Your task to perform on an android device: toggle improve location accuracy Image 0: 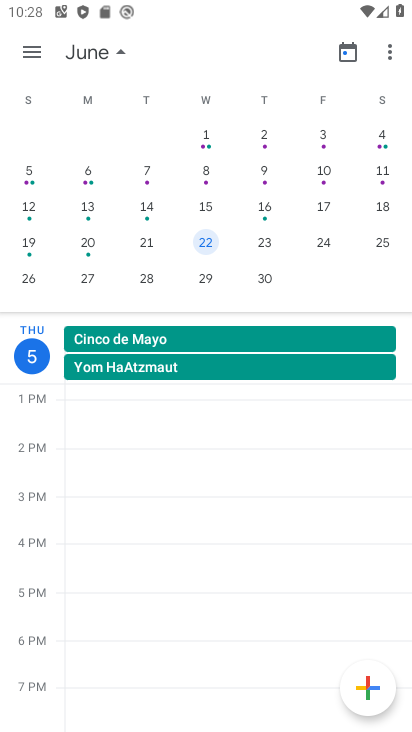
Step 0: press home button
Your task to perform on an android device: toggle improve location accuracy Image 1: 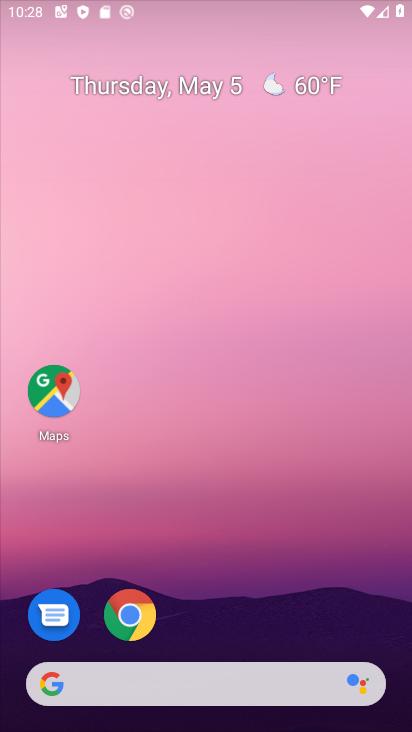
Step 1: drag from (267, 576) to (282, 18)
Your task to perform on an android device: toggle improve location accuracy Image 2: 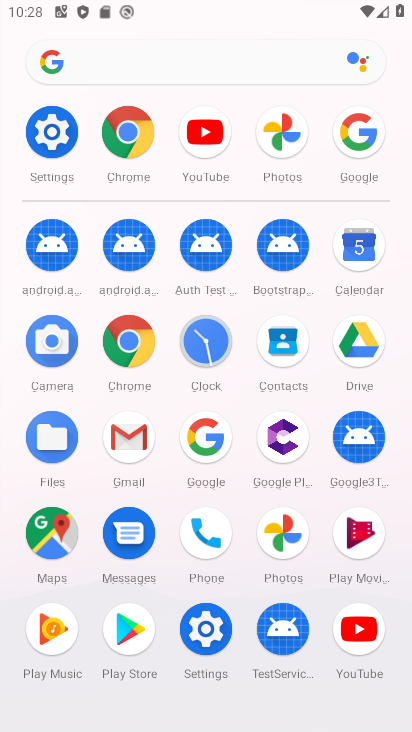
Step 2: click (53, 130)
Your task to perform on an android device: toggle improve location accuracy Image 3: 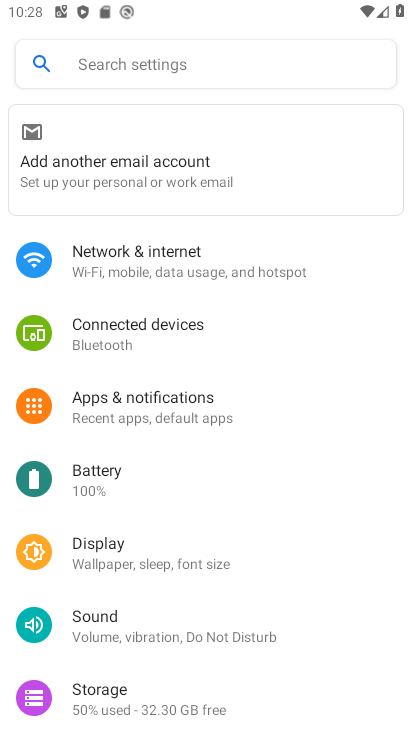
Step 3: drag from (262, 586) to (255, 288)
Your task to perform on an android device: toggle improve location accuracy Image 4: 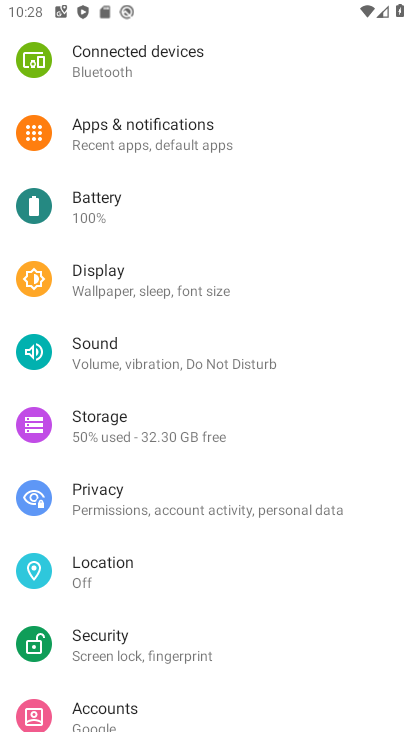
Step 4: click (128, 561)
Your task to perform on an android device: toggle improve location accuracy Image 5: 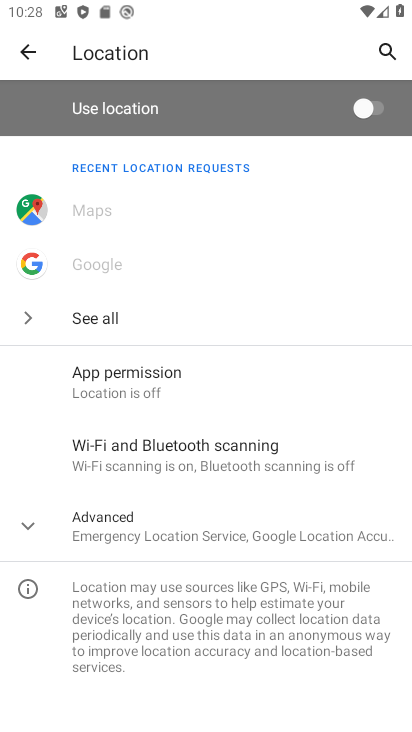
Step 5: click (116, 535)
Your task to perform on an android device: toggle improve location accuracy Image 6: 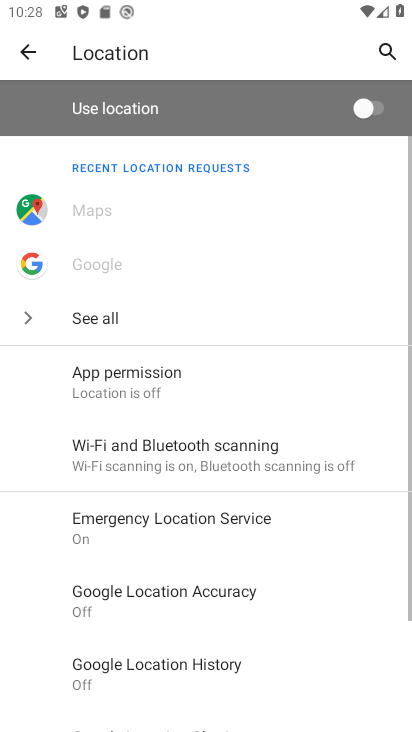
Step 6: drag from (227, 540) to (232, 247)
Your task to perform on an android device: toggle improve location accuracy Image 7: 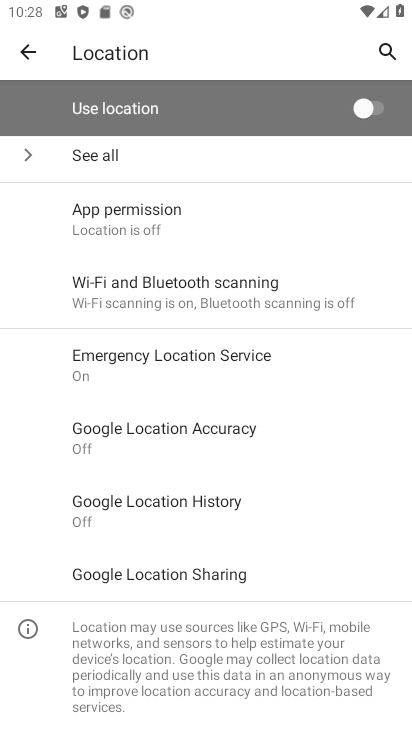
Step 7: click (144, 431)
Your task to perform on an android device: toggle improve location accuracy Image 8: 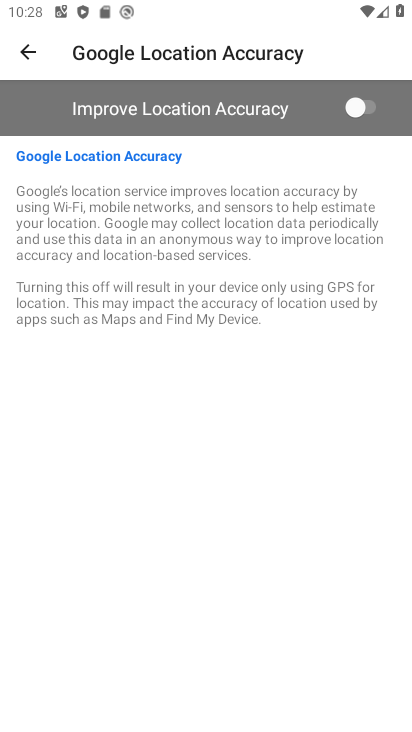
Step 8: click (360, 103)
Your task to perform on an android device: toggle improve location accuracy Image 9: 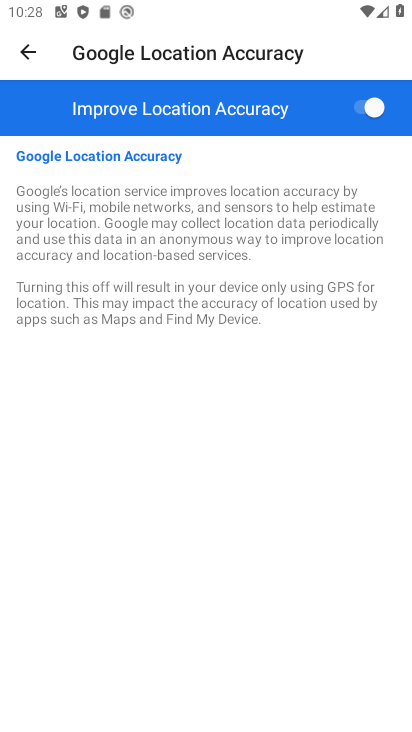
Step 9: task complete